Your task to perform on an android device: change notification settings in the gmail app Image 0: 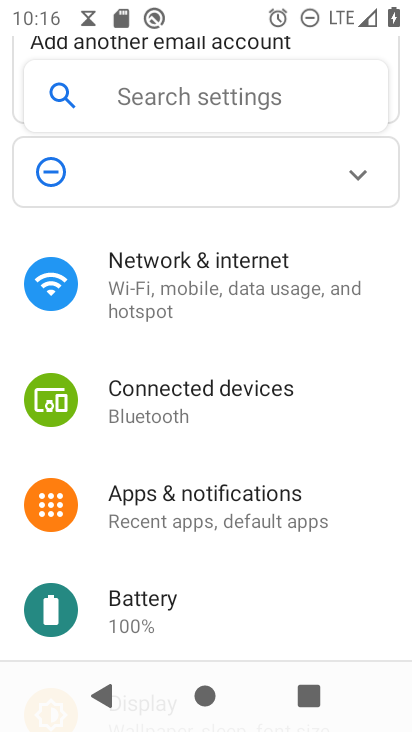
Step 0: press home button
Your task to perform on an android device: change notification settings in the gmail app Image 1: 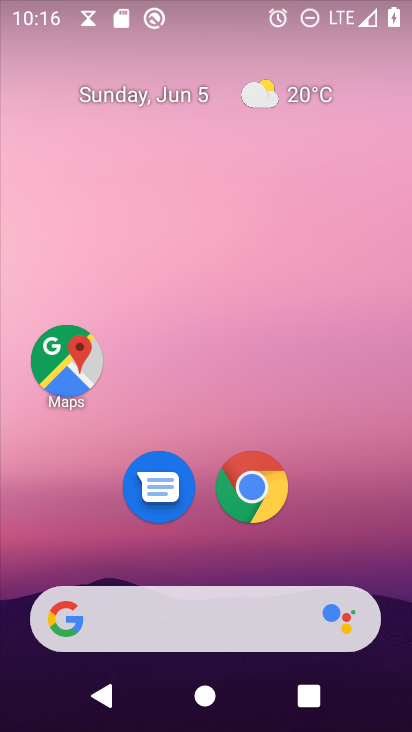
Step 1: drag from (208, 576) to (192, 199)
Your task to perform on an android device: change notification settings in the gmail app Image 2: 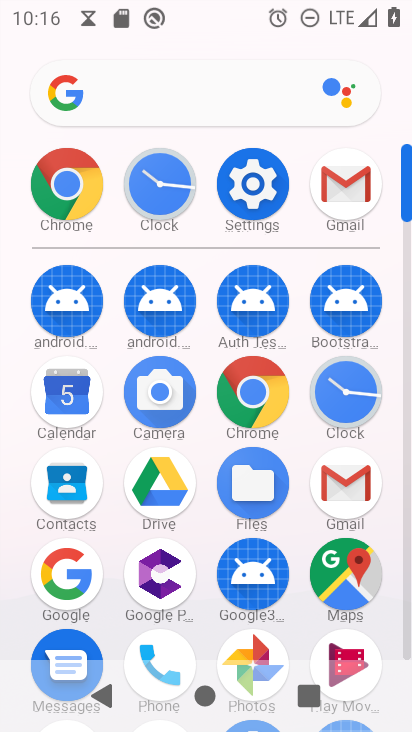
Step 2: click (323, 172)
Your task to perform on an android device: change notification settings in the gmail app Image 3: 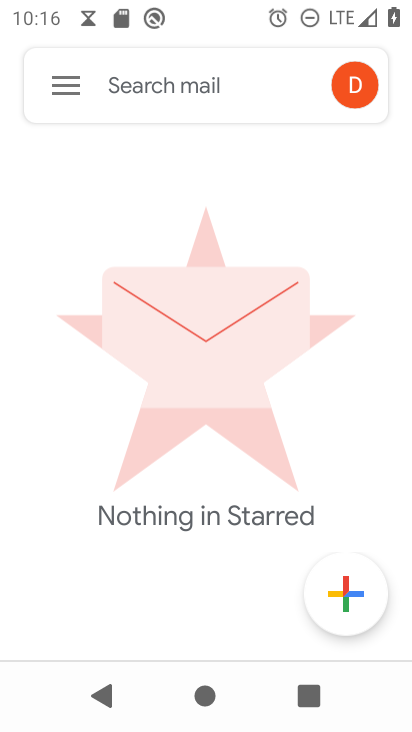
Step 3: click (54, 80)
Your task to perform on an android device: change notification settings in the gmail app Image 4: 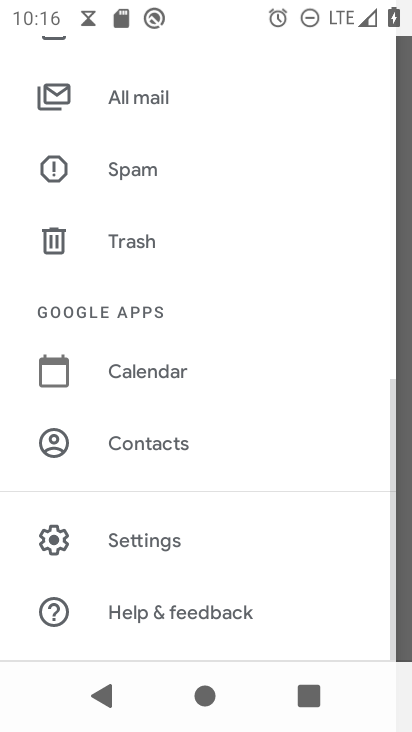
Step 4: click (163, 558)
Your task to perform on an android device: change notification settings in the gmail app Image 5: 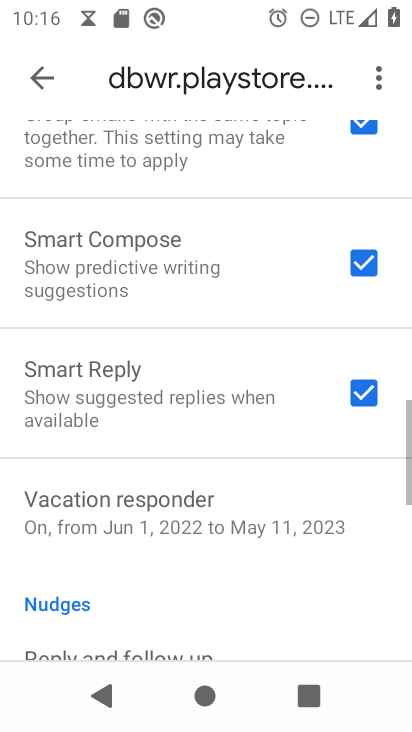
Step 5: drag from (159, 201) to (163, 584)
Your task to perform on an android device: change notification settings in the gmail app Image 6: 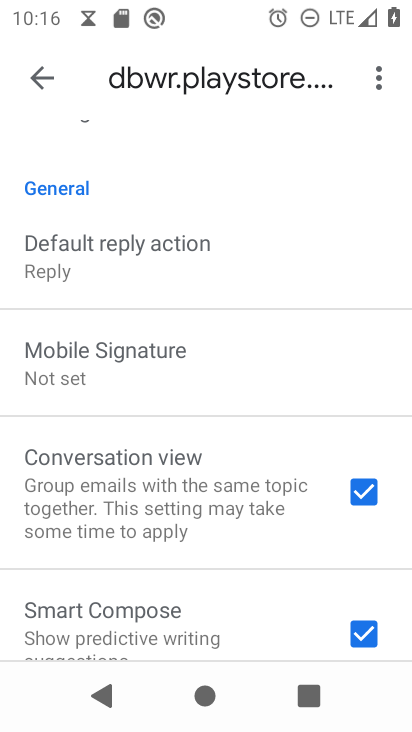
Step 6: drag from (150, 220) to (149, 605)
Your task to perform on an android device: change notification settings in the gmail app Image 7: 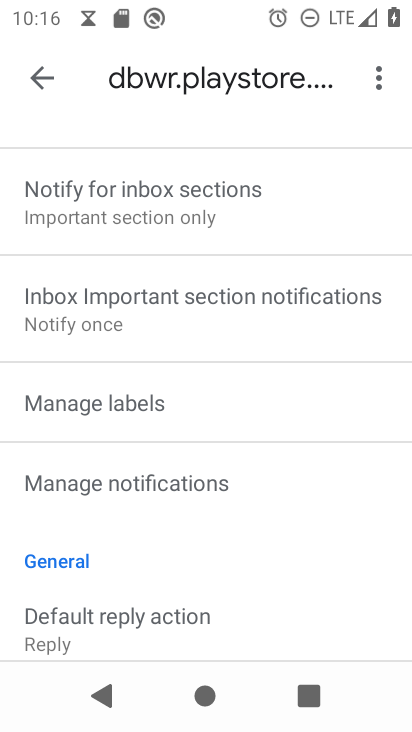
Step 7: drag from (189, 199) to (213, 550)
Your task to perform on an android device: change notification settings in the gmail app Image 8: 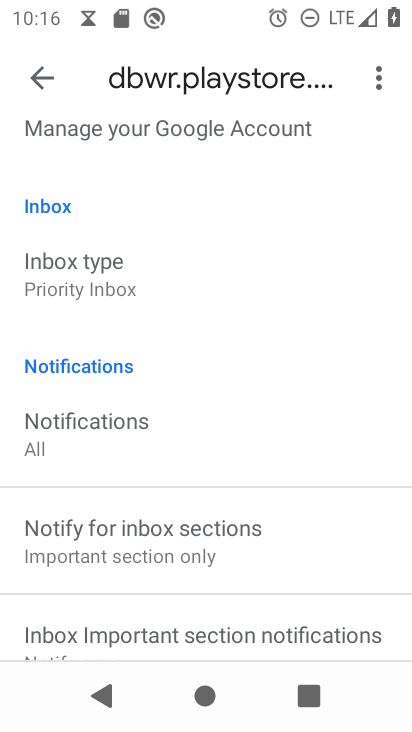
Step 8: click (121, 430)
Your task to perform on an android device: change notification settings in the gmail app Image 9: 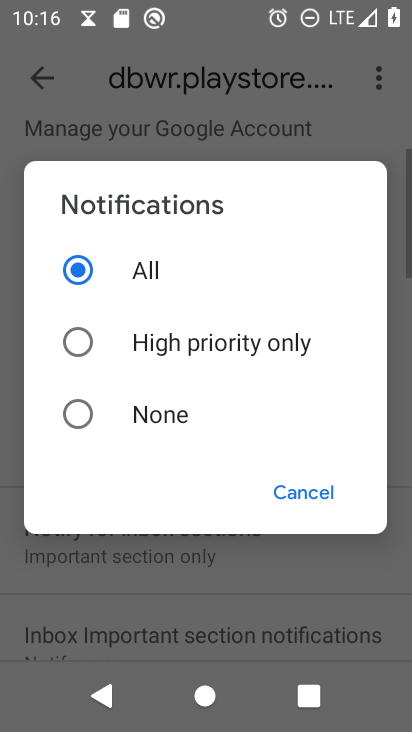
Step 9: click (164, 401)
Your task to perform on an android device: change notification settings in the gmail app Image 10: 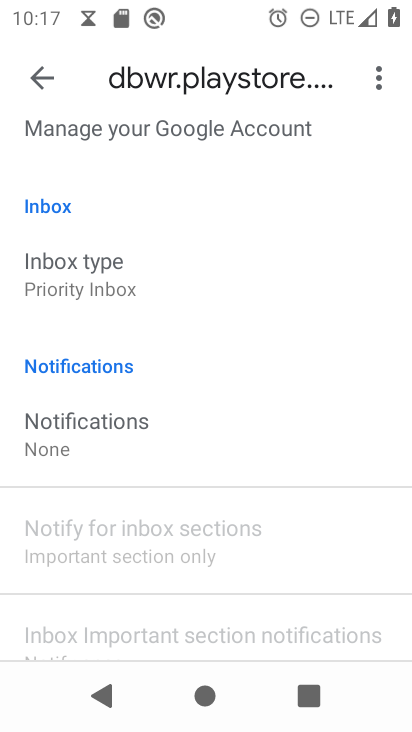
Step 10: task complete